Your task to perform on an android device: Check the weather Image 0: 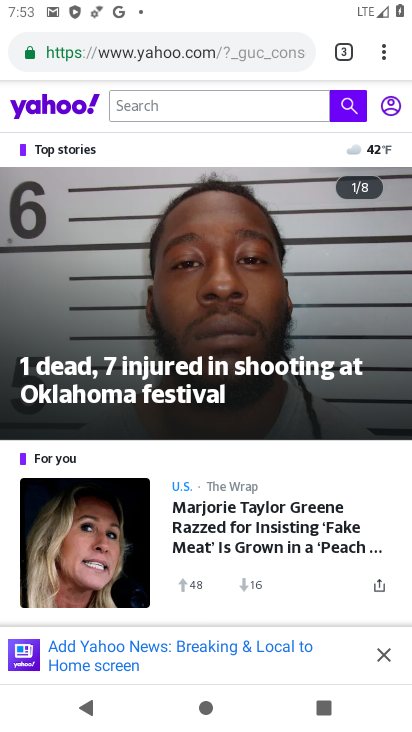
Step 0: click (385, 46)
Your task to perform on an android device: Check the weather Image 1: 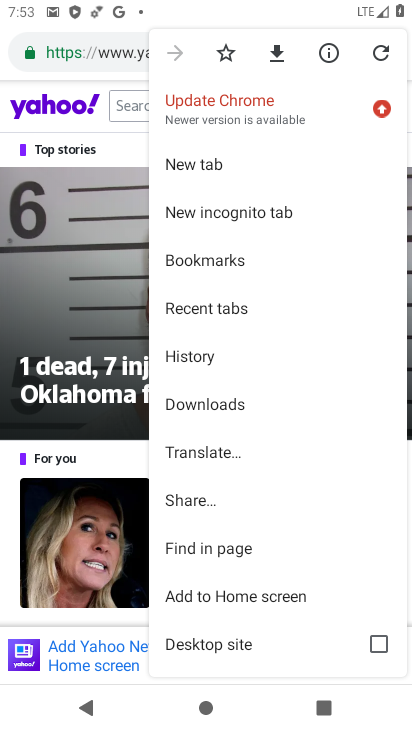
Step 1: click (234, 162)
Your task to perform on an android device: Check the weather Image 2: 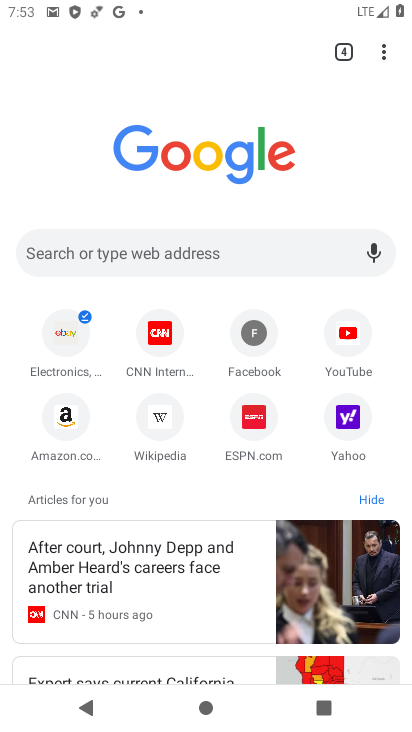
Step 2: click (176, 246)
Your task to perform on an android device: Check the weather Image 3: 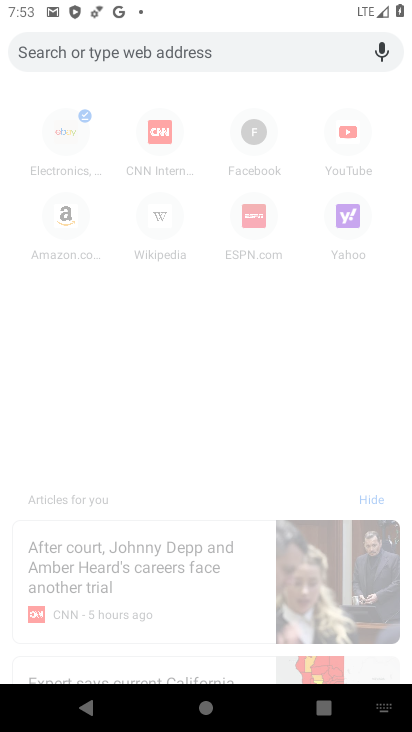
Step 3: type "Check the weather"
Your task to perform on an android device: Check the weather Image 4: 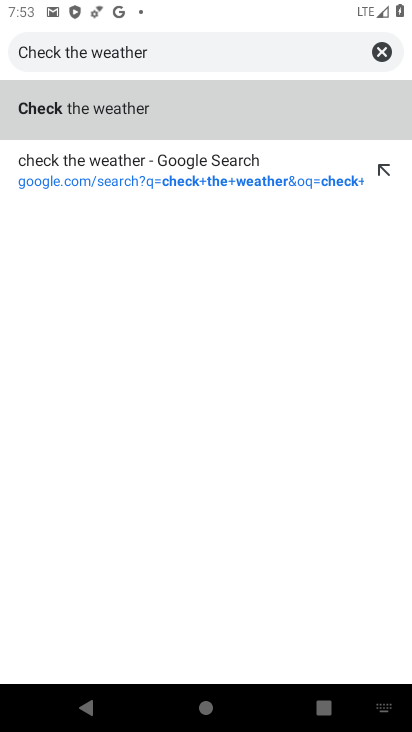
Step 4: click (118, 123)
Your task to perform on an android device: Check the weather Image 5: 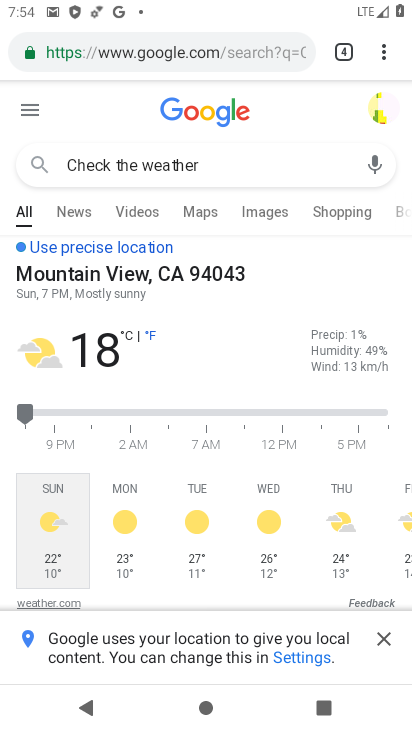
Step 5: task complete